Your task to perform on an android device: How much does a 3 bedroom apartment rent for in Dallas? Image 0: 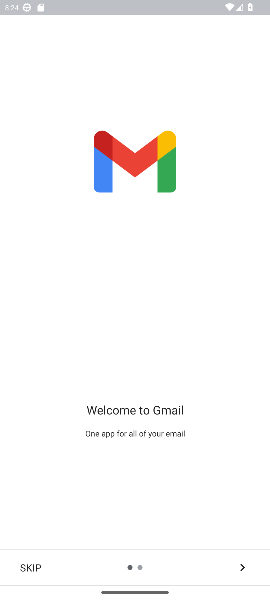
Step 0: press home button
Your task to perform on an android device: How much does a 3 bedroom apartment rent for in Dallas? Image 1: 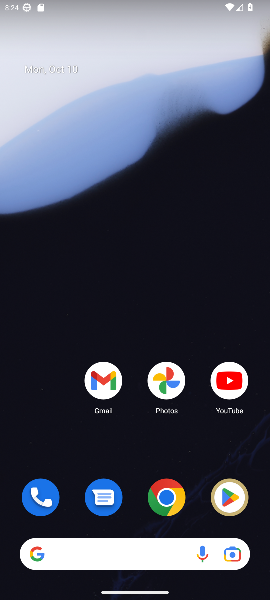
Step 1: drag from (132, 356) to (130, 189)
Your task to perform on an android device: How much does a 3 bedroom apartment rent for in Dallas? Image 2: 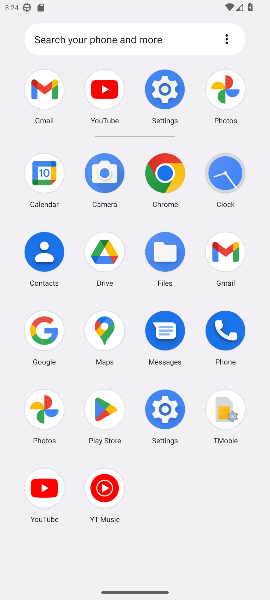
Step 2: click (39, 323)
Your task to perform on an android device: How much does a 3 bedroom apartment rent for in Dallas? Image 3: 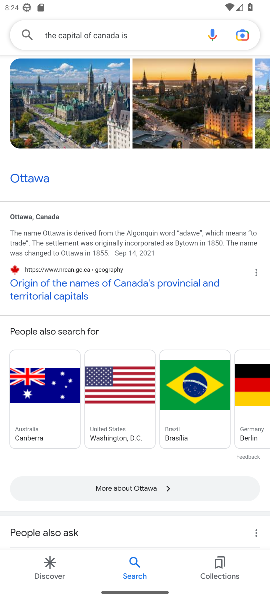
Step 3: click (166, 31)
Your task to perform on an android device: How much does a 3 bedroom apartment rent for in Dallas? Image 4: 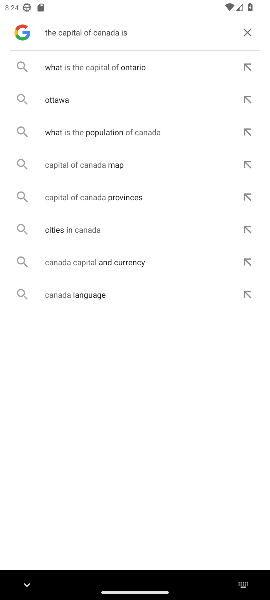
Step 4: click (253, 30)
Your task to perform on an android device: How much does a 3 bedroom apartment rent for in Dallas? Image 5: 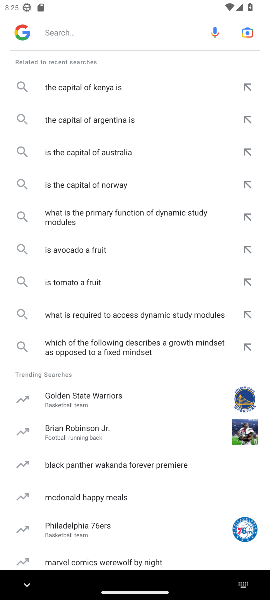
Step 5: click (69, 37)
Your task to perform on an android device: How much does a 3 bedroom apartment rent for in Dallas? Image 6: 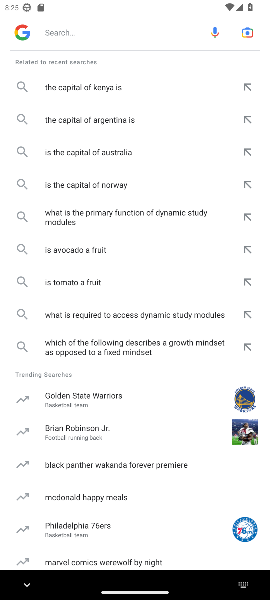
Step 6: type "How much does a 3 bedroom apartment rent for in Dallas "
Your task to perform on an android device: How much does a 3 bedroom apartment rent for in Dallas? Image 7: 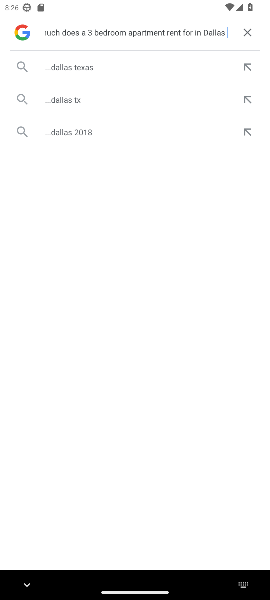
Step 7: click (93, 65)
Your task to perform on an android device: How much does a 3 bedroom apartment rent for in Dallas? Image 8: 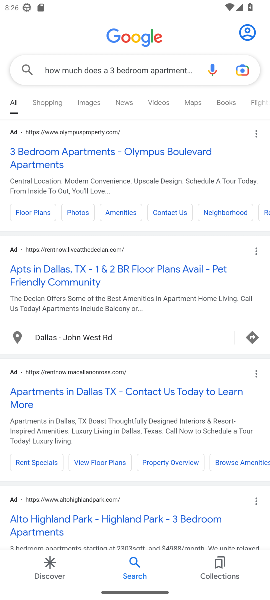
Step 8: click (94, 148)
Your task to perform on an android device: How much does a 3 bedroom apartment rent for in Dallas? Image 9: 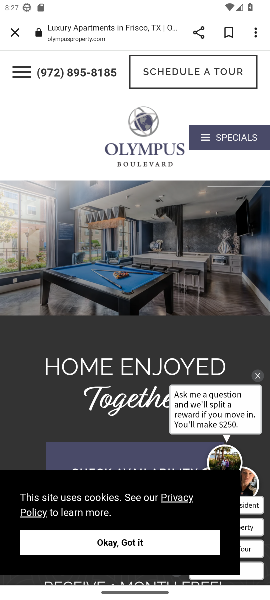
Step 9: click (128, 534)
Your task to perform on an android device: How much does a 3 bedroom apartment rent for in Dallas? Image 10: 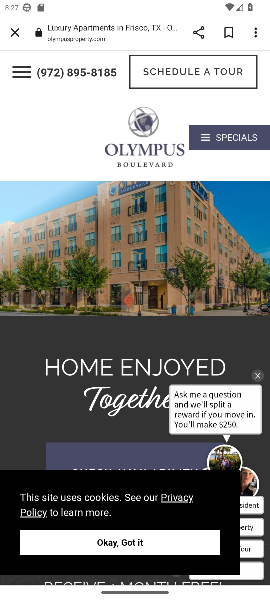
Step 10: task complete